Your task to perform on an android device: What's the weather going to be tomorrow? Image 0: 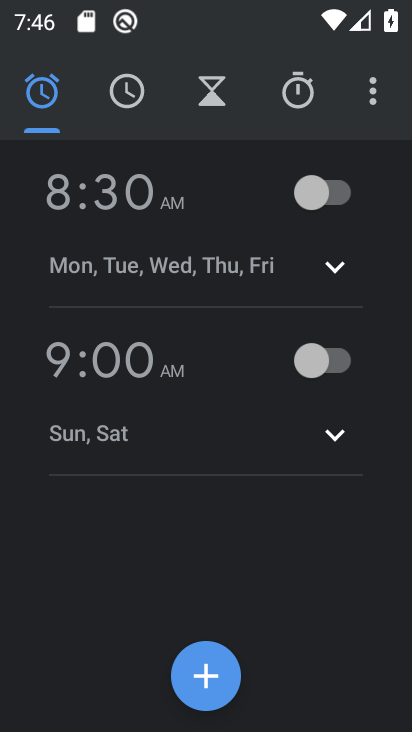
Step 0: press home button
Your task to perform on an android device: What's the weather going to be tomorrow? Image 1: 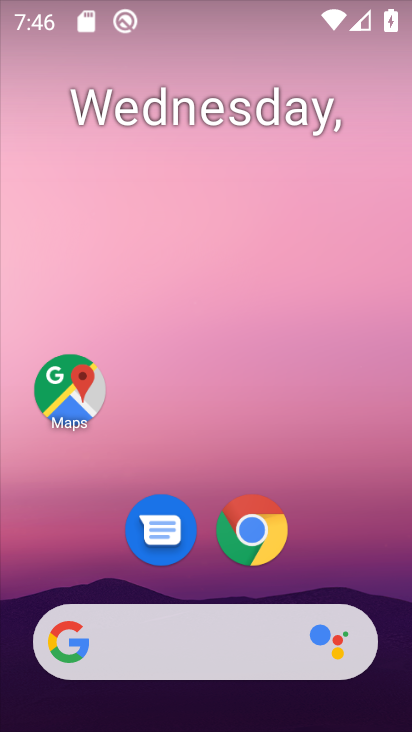
Step 1: click (146, 631)
Your task to perform on an android device: What's the weather going to be tomorrow? Image 2: 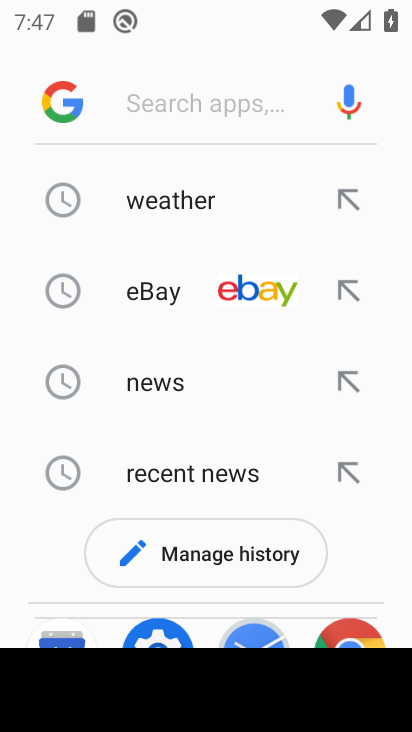
Step 2: type "wealther tomorrow"
Your task to perform on an android device: What's the weather going to be tomorrow? Image 3: 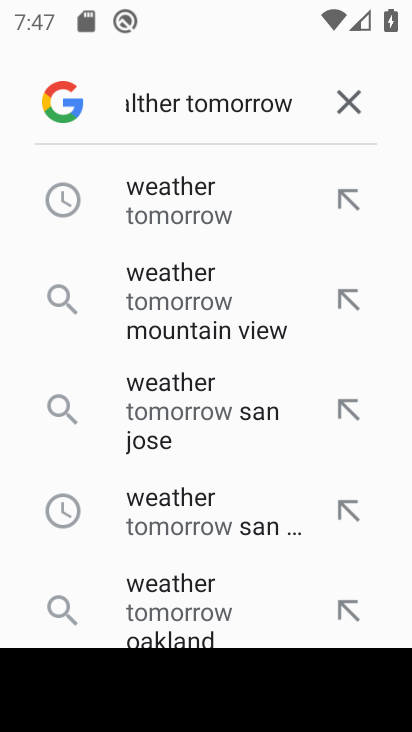
Step 3: click (195, 197)
Your task to perform on an android device: What's the weather going to be tomorrow? Image 4: 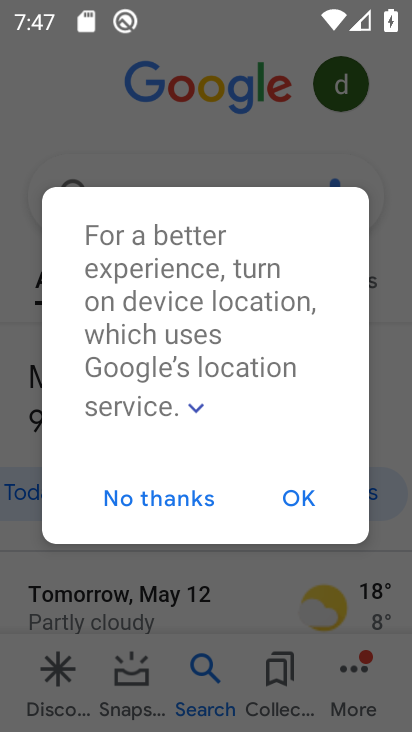
Step 4: click (194, 499)
Your task to perform on an android device: What's the weather going to be tomorrow? Image 5: 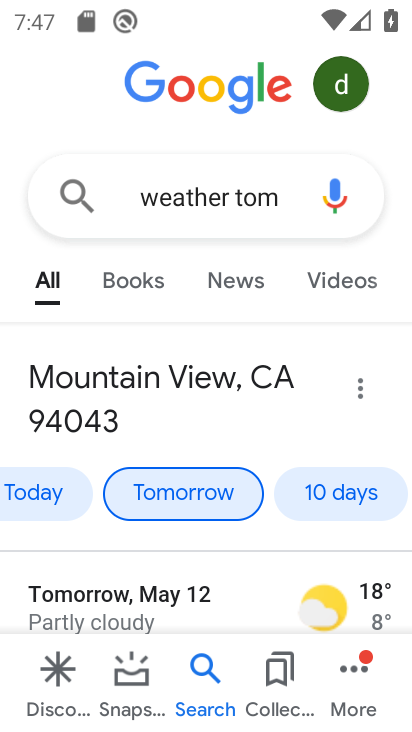
Step 5: task complete